Your task to perform on an android device: Add "apple airpods" to the cart on costco.com, then select checkout. Image 0: 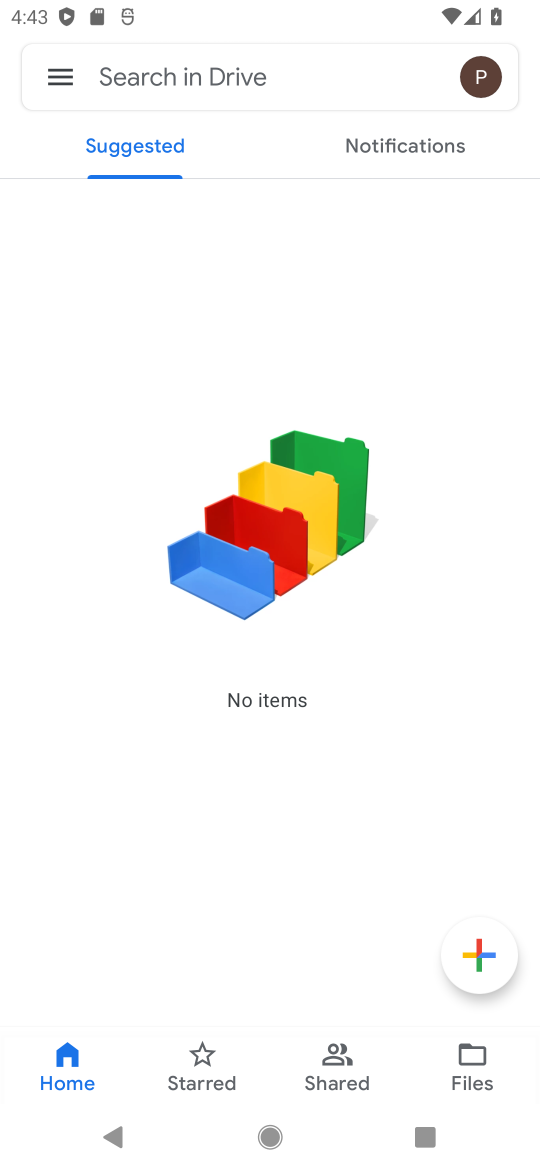
Step 0: press home button
Your task to perform on an android device: Add "apple airpods" to the cart on costco.com, then select checkout. Image 1: 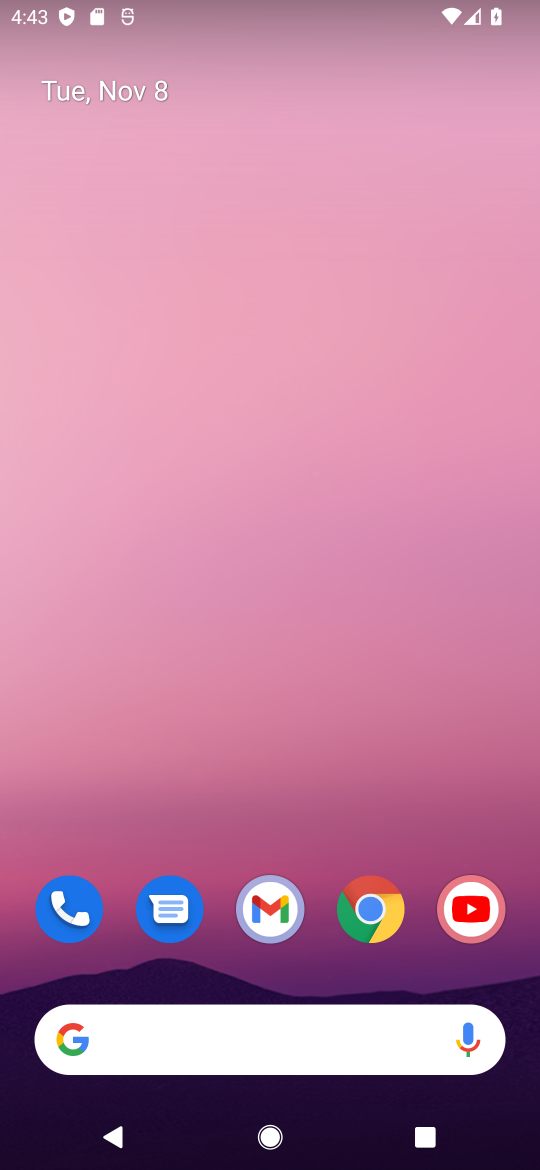
Step 1: click (382, 914)
Your task to perform on an android device: Add "apple airpods" to the cart on costco.com, then select checkout. Image 2: 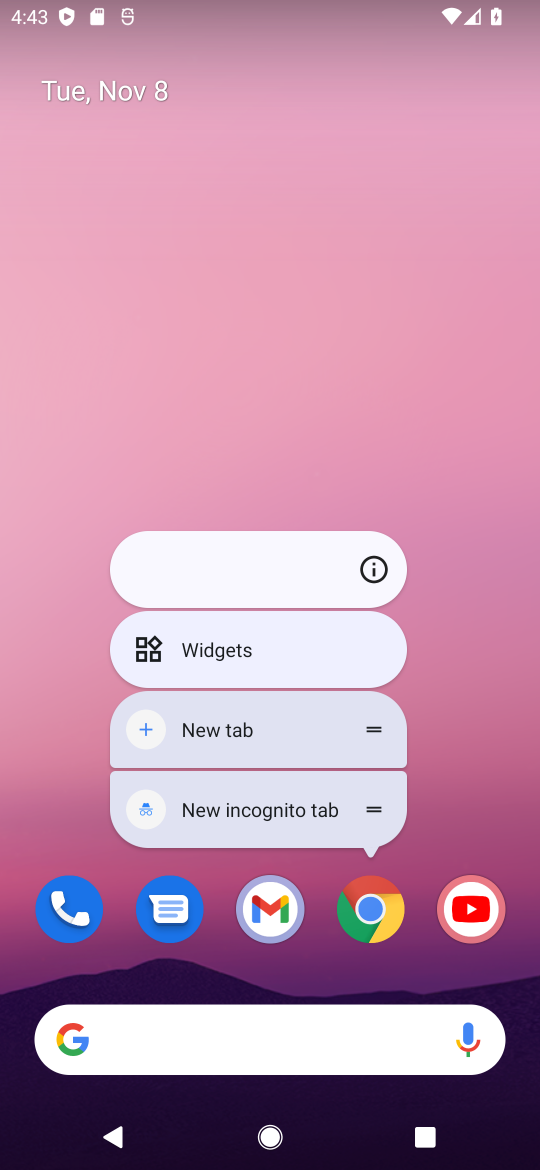
Step 2: click (376, 918)
Your task to perform on an android device: Add "apple airpods" to the cart on costco.com, then select checkout. Image 3: 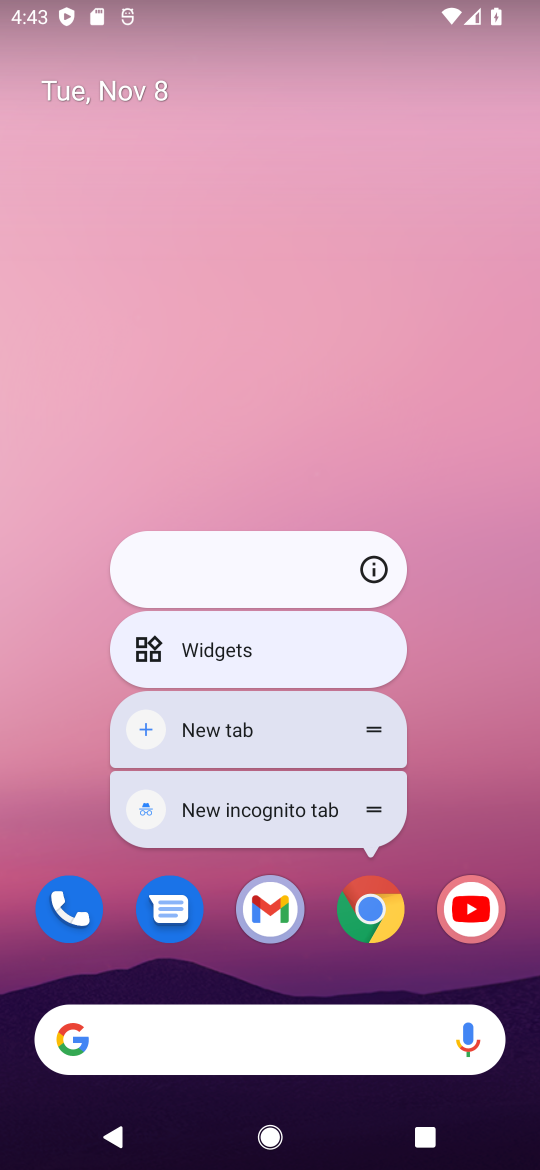
Step 3: click (370, 893)
Your task to perform on an android device: Add "apple airpods" to the cart on costco.com, then select checkout. Image 4: 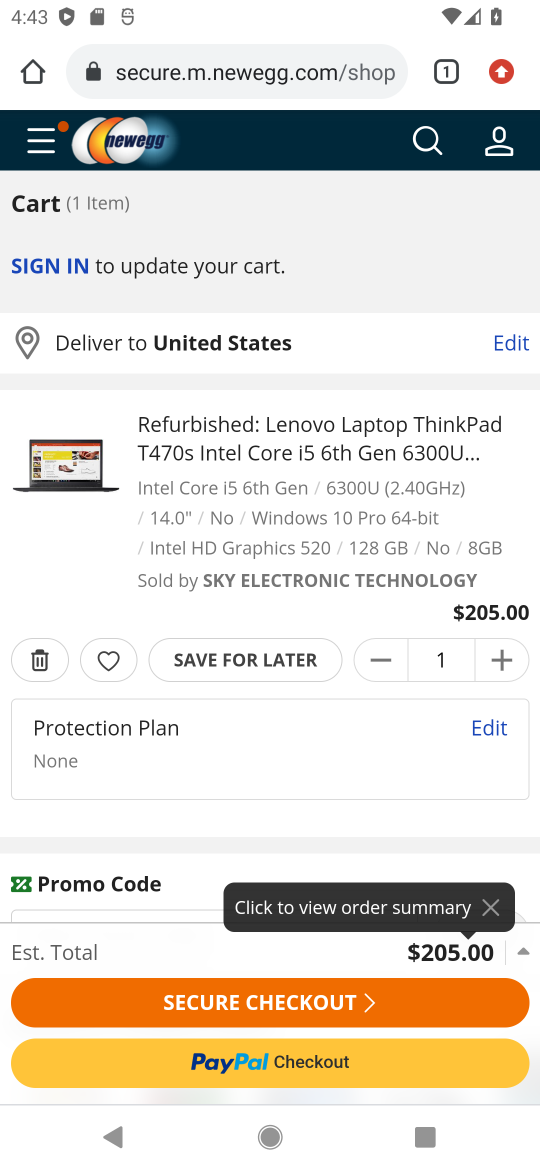
Step 4: click (307, 81)
Your task to perform on an android device: Add "apple airpods" to the cart on costco.com, then select checkout. Image 5: 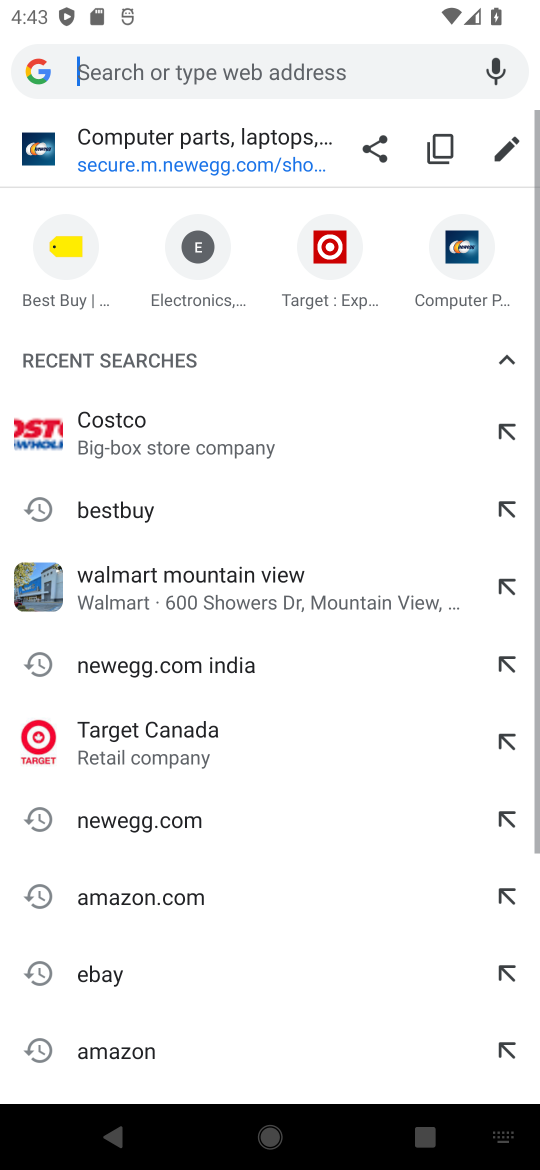
Step 5: click (119, 417)
Your task to perform on an android device: Add "apple airpods" to the cart on costco.com, then select checkout. Image 6: 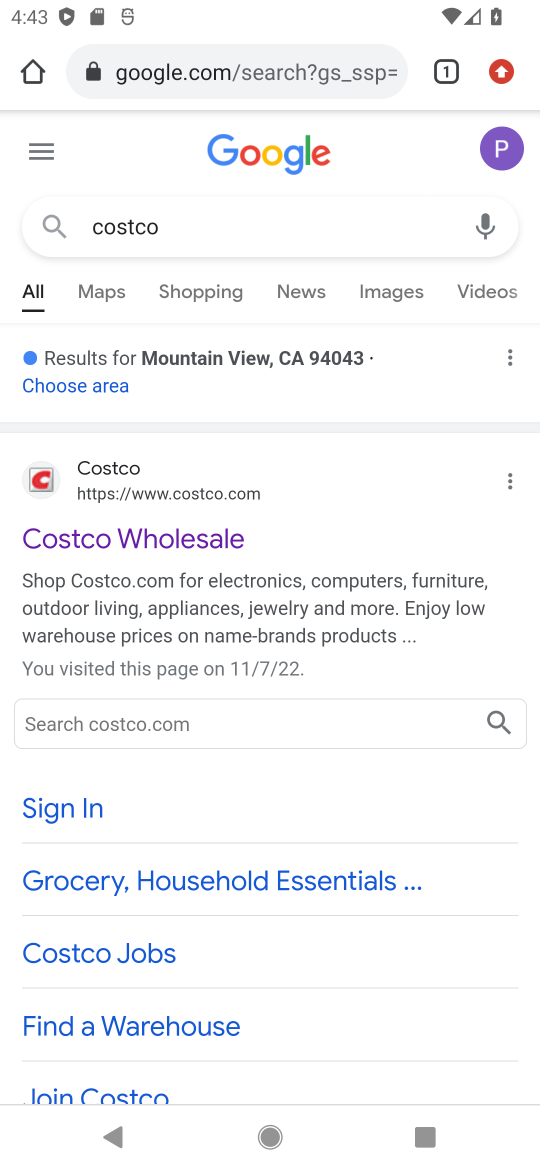
Step 6: click (150, 536)
Your task to perform on an android device: Add "apple airpods" to the cart on costco.com, then select checkout. Image 7: 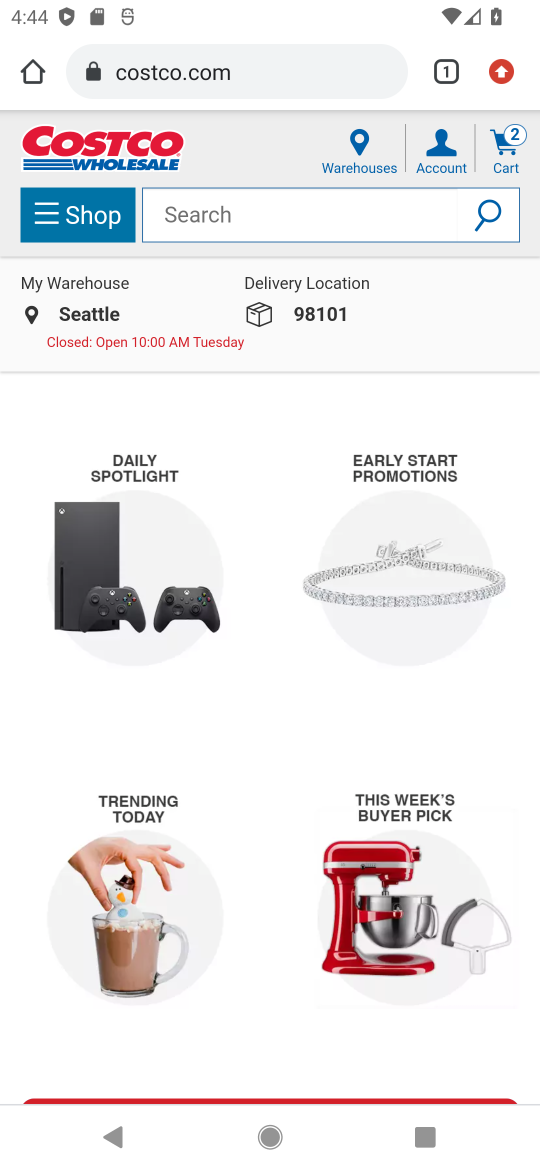
Step 7: click (223, 212)
Your task to perform on an android device: Add "apple airpods" to the cart on costco.com, then select checkout. Image 8: 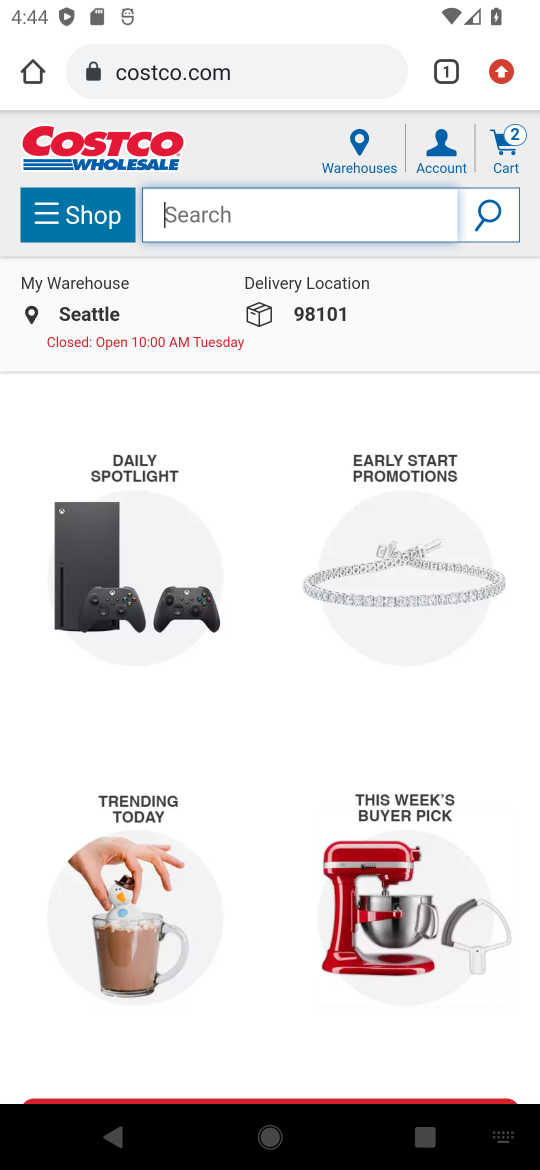
Step 8: type "apple airpods"
Your task to perform on an android device: Add "apple airpods" to the cart on costco.com, then select checkout. Image 9: 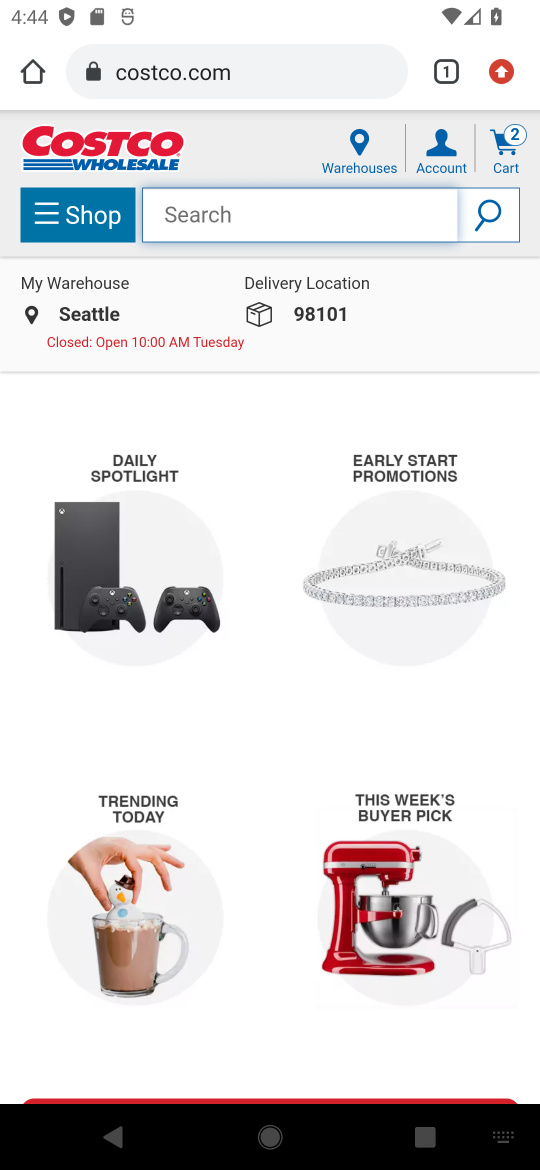
Step 9: press enter
Your task to perform on an android device: Add "apple airpods" to the cart on costco.com, then select checkout. Image 10: 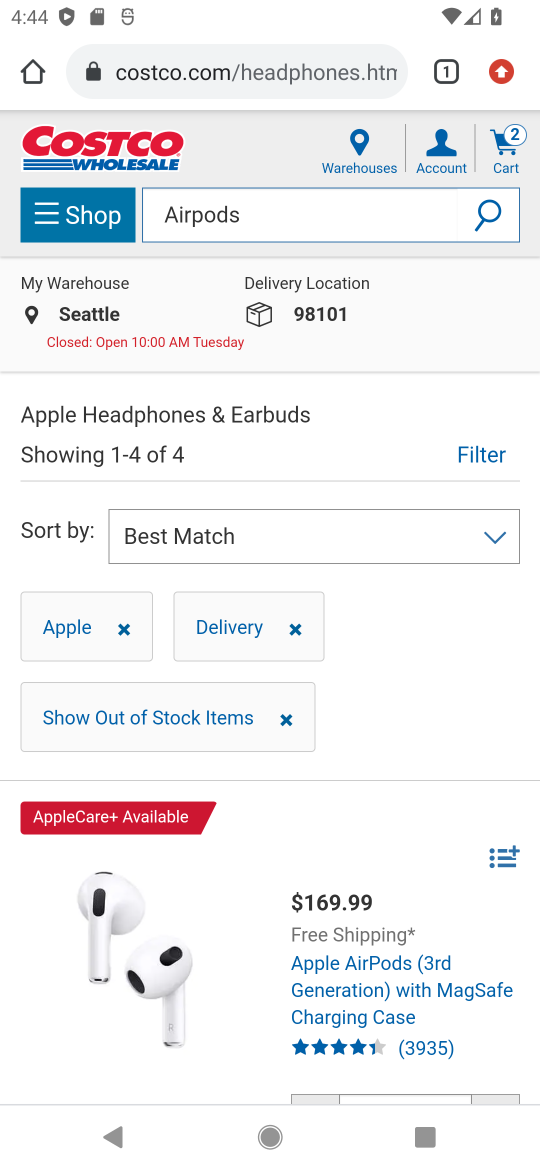
Step 10: drag from (129, 1033) to (375, 480)
Your task to perform on an android device: Add "apple airpods" to the cart on costco.com, then select checkout. Image 11: 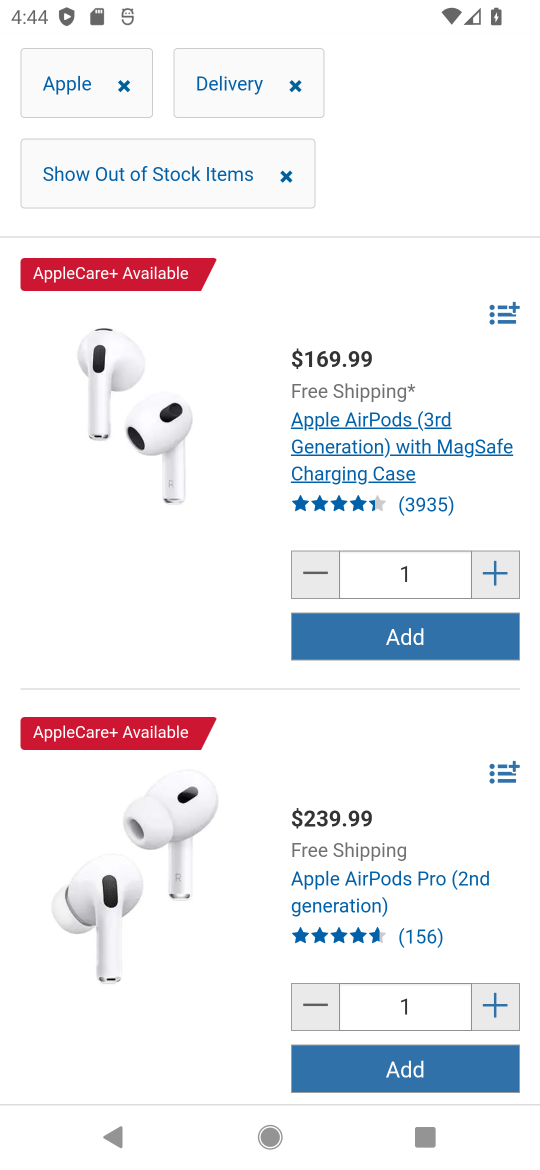
Step 11: click (396, 623)
Your task to perform on an android device: Add "apple airpods" to the cart on costco.com, then select checkout. Image 12: 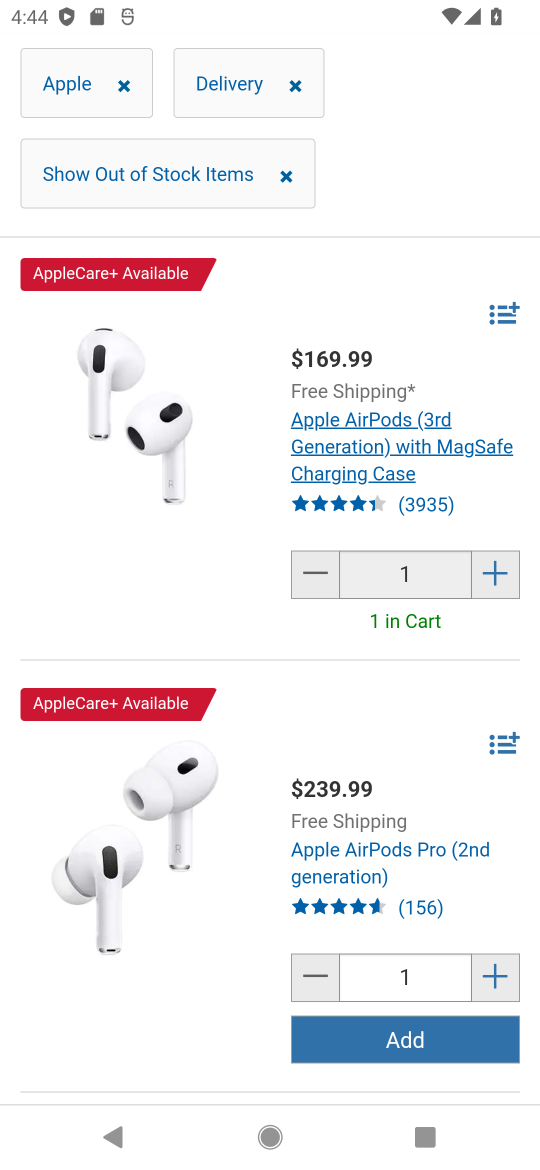
Step 12: drag from (437, 228) to (252, 907)
Your task to perform on an android device: Add "apple airpods" to the cart on costco.com, then select checkout. Image 13: 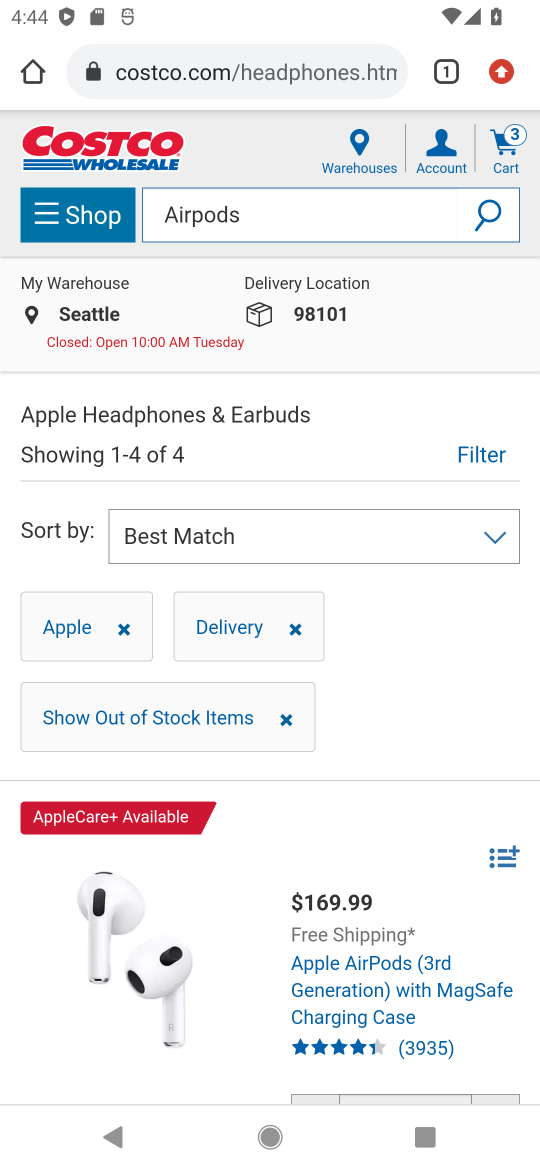
Step 13: click (500, 134)
Your task to perform on an android device: Add "apple airpods" to the cart on costco.com, then select checkout. Image 14: 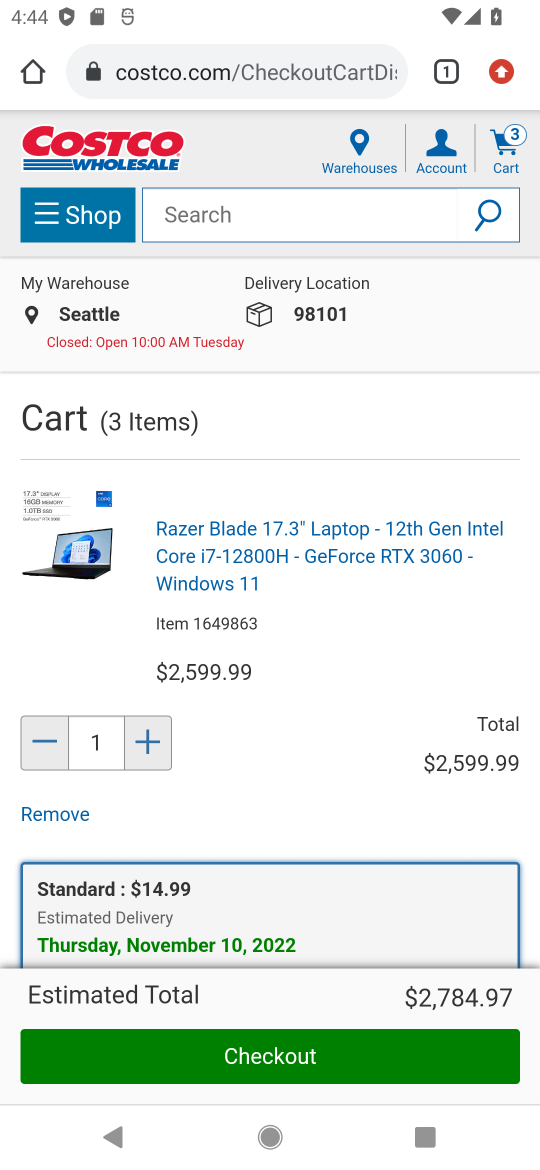
Step 14: click (63, 806)
Your task to perform on an android device: Add "apple airpods" to the cart on costco.com, then select checkout. Image 15: 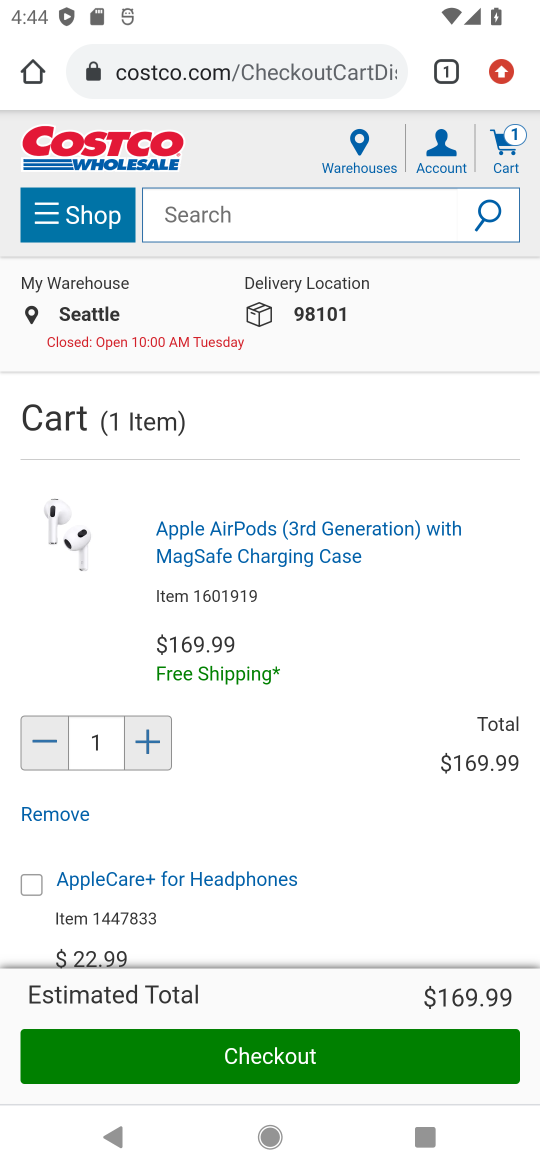
Step 15: drag from (297, 829) to (336, 786)
Your task to perform on an android device: Add "apple airpods" to the cart on costco.com, then select checkout. Image 16: 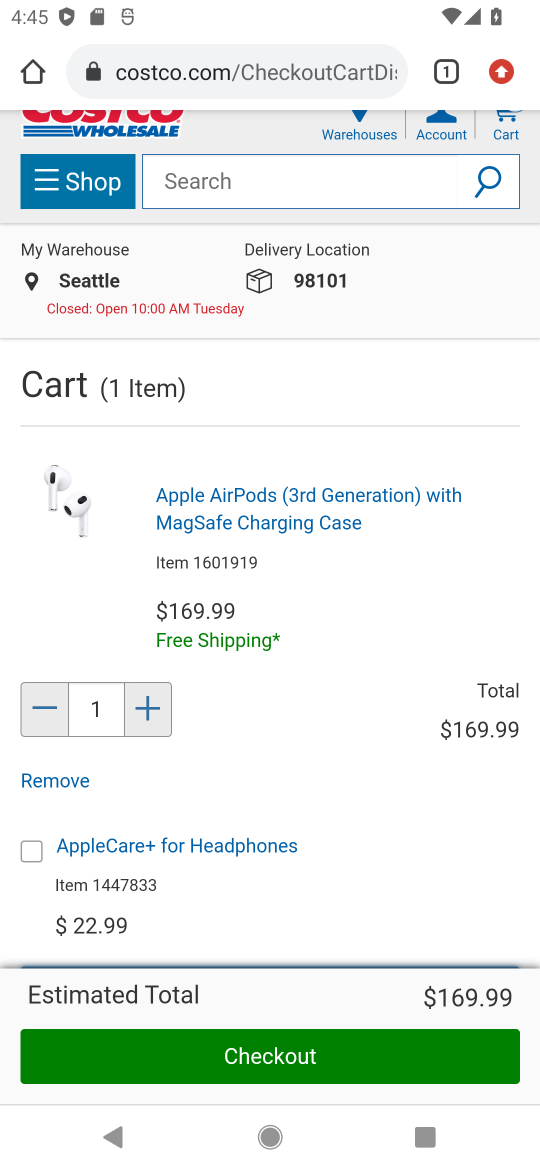
Step 16: click (303, 1063)
Your task to perform on an android device: Add "apple airpods" to the cart on costco.com, then select checkout. Image 17: 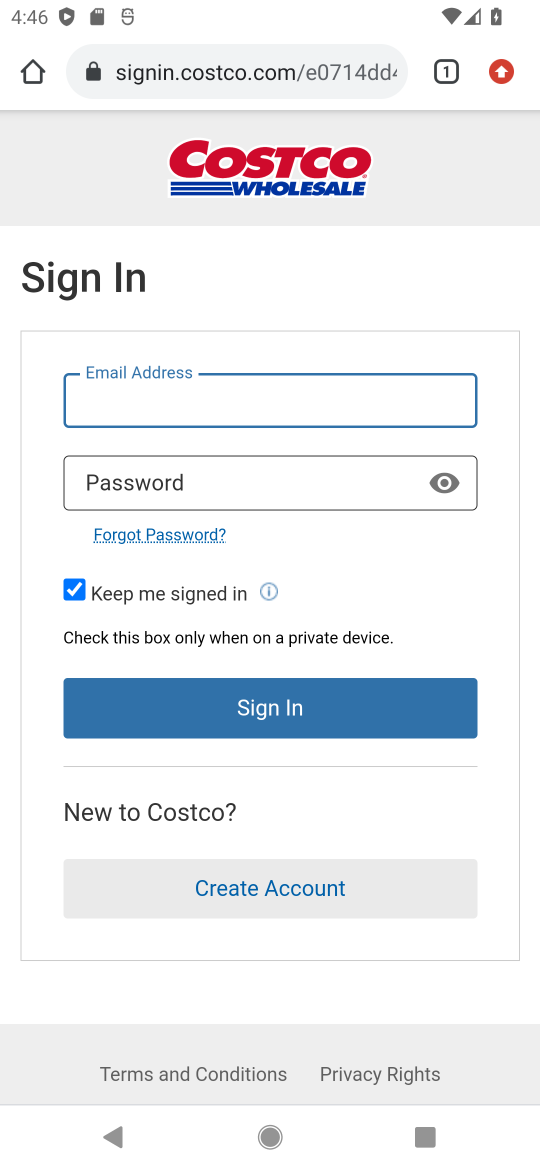
Step 17: task complete